Your task to perform on an android device: Open Google Chrome and click the shortcut for Amazon.com Image 0: 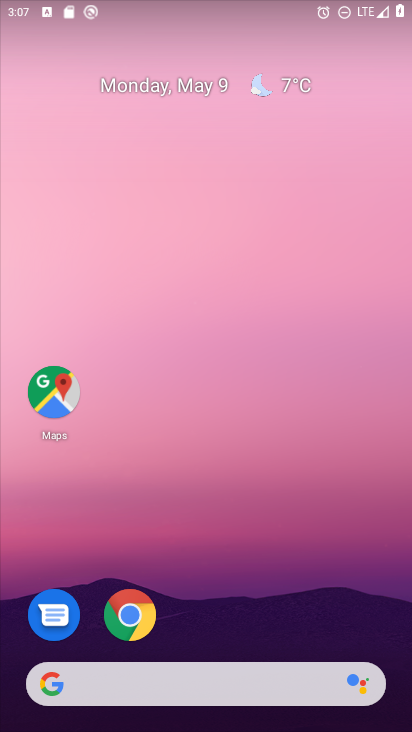
Step 0: click (126, 618)
Your task to perform on an android device: Open Google Chrome and click the shortcut for Amazon.com Image 1: 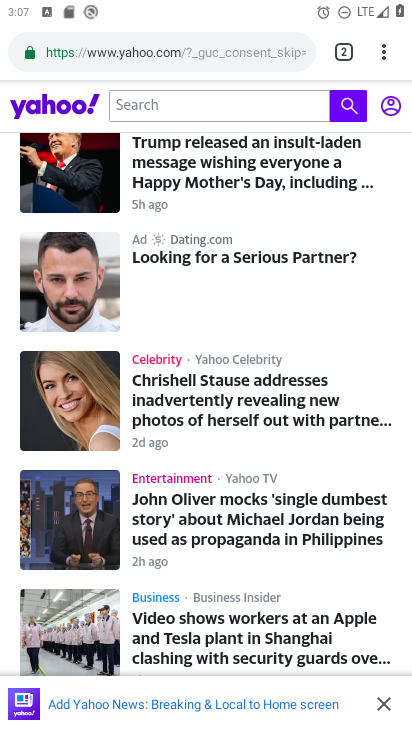
Step 1: click (383, 55)
Your task to perform on an android device: Open Google Chrome and click the shortcut for Amazon.com Image 2: 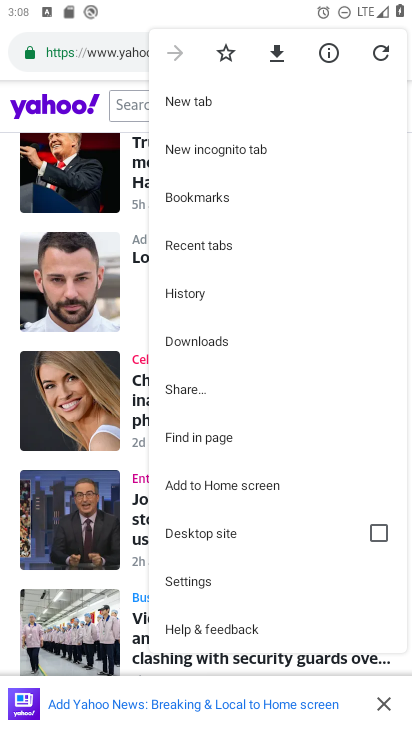
Step 2: click (198, 98)
Your task to perform on an android device: Open Google Chrome and click the shortcut for Amazon.com Image 3: 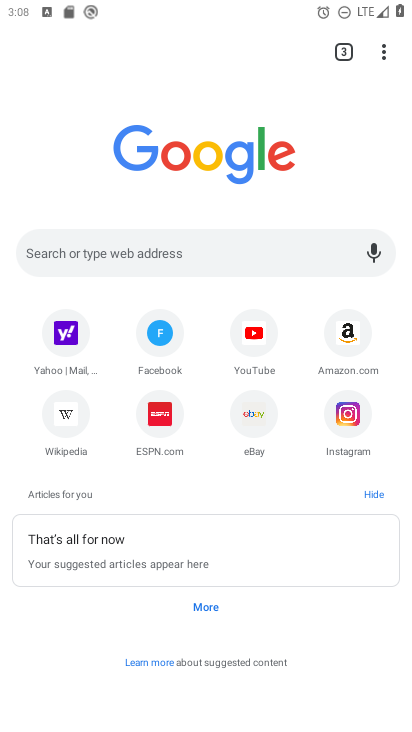
Step 3: click (345, 335)
Your task to perform on an android device: Open Google Chrome and click the shortcut for Amazon.com Image 4: 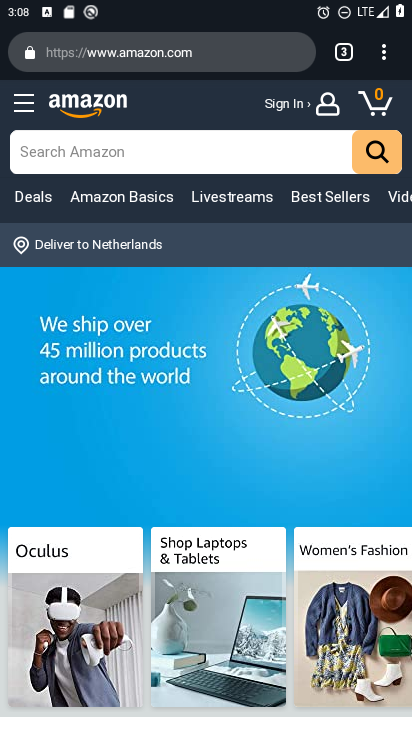
Step 4: task complete